Your task to perform on an android device: Go to accessibility settings Image 0: 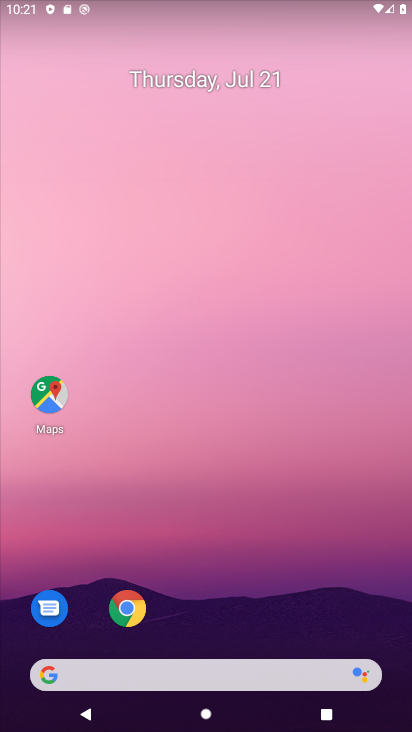
Step 0: click (226, 208)
Your task to perform on an android device: Go to accessibility settings Image 1: 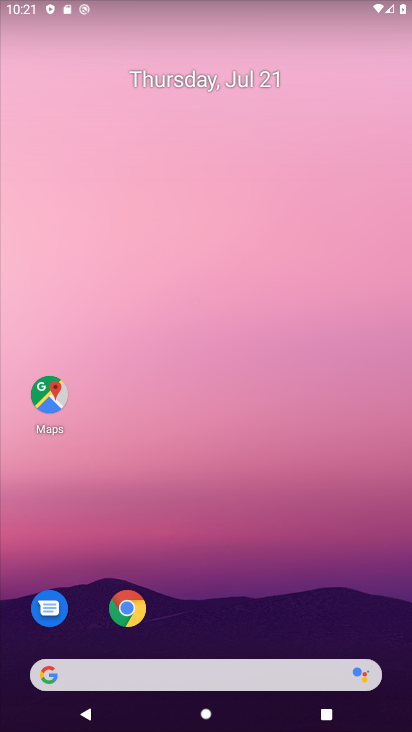
Step 1: drag from (207, 500) to (260, 144)
Your task to perform on an android device: Go to accessibility settings Image 2: 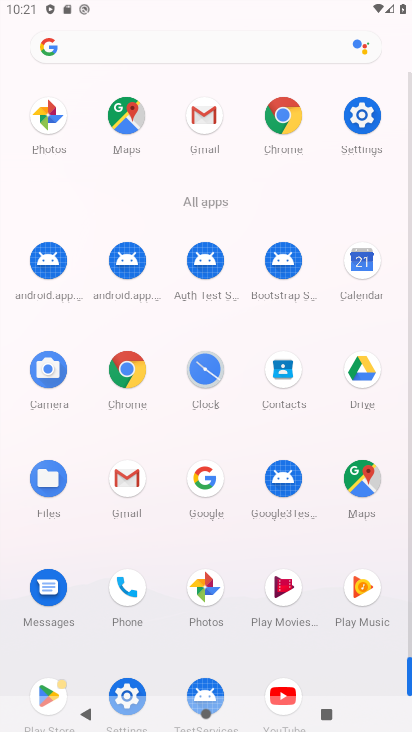
Step 2: drag from (141, 654) to (159, 452)
Your task to perform on an android device: Go to accessibility settings Image 3: 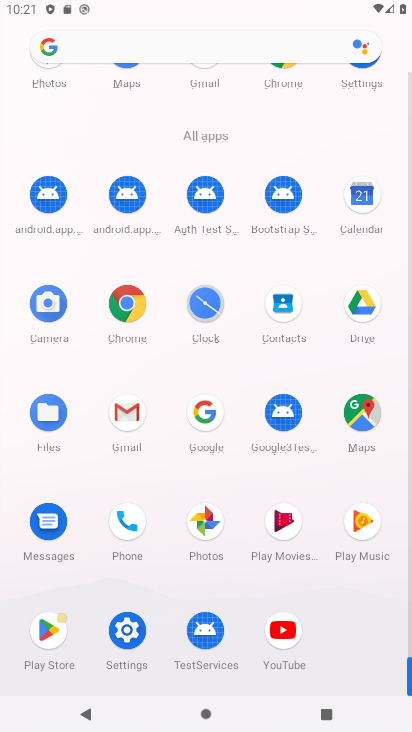
Step 3: click (128, 625)
Your task to perform on an android device: Go to accessibility settings Image 4: 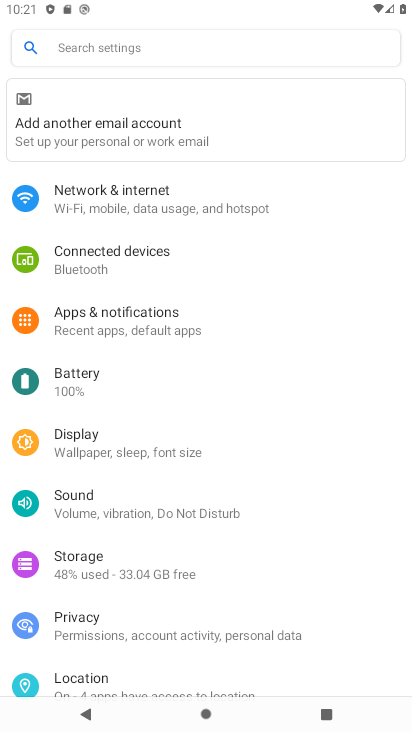
Step 4: drag from (151, 485) to (182, 131)
Your task to perform on an android device: Go to accessibility settings Image 5: 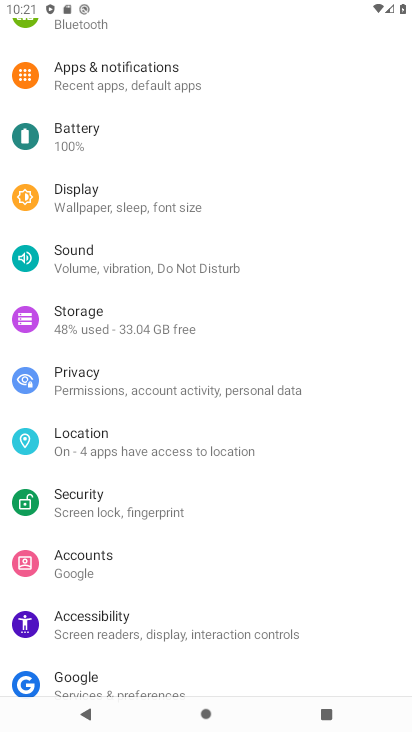
Step 5: drag from (187, 613) to (188, 186)
Your task to perform on an android device: Go to accessibility settings Image 6: 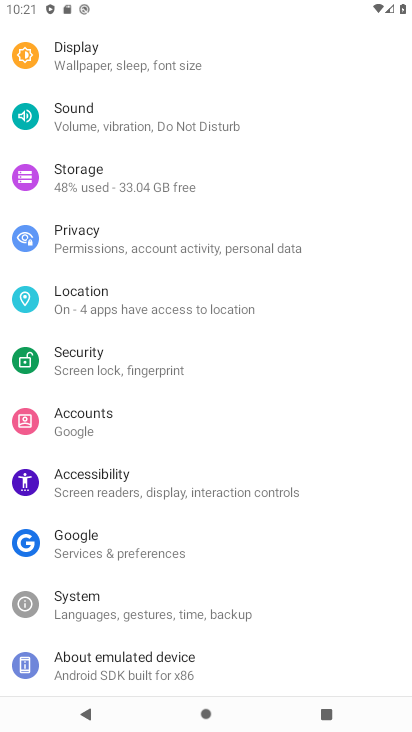
Step 6: click (100, 491)
Your task to perform on an android device: Go to accessibility settings Image 7: 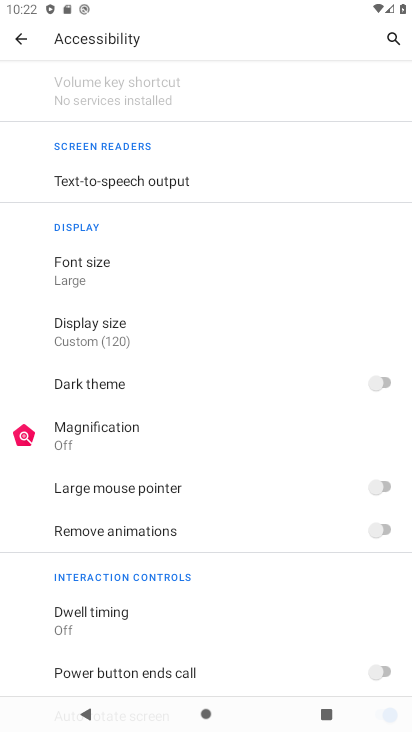
Step 7: task complete